Your task to perform on an android device: Go to notification settings Image 0: 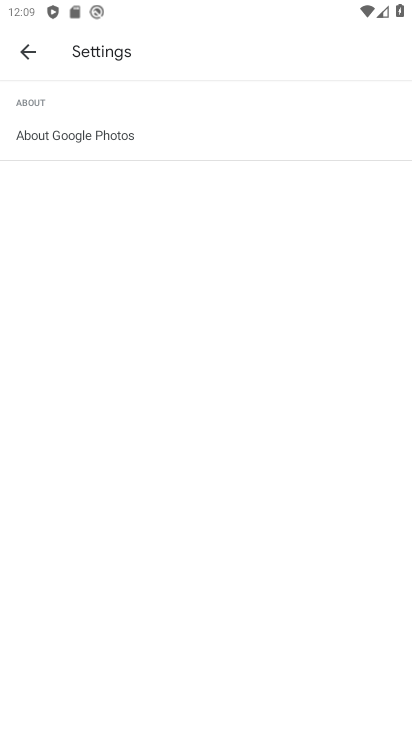
Step 0: press home button
Your task to perform on an android device: Go to notification settings Image 1: 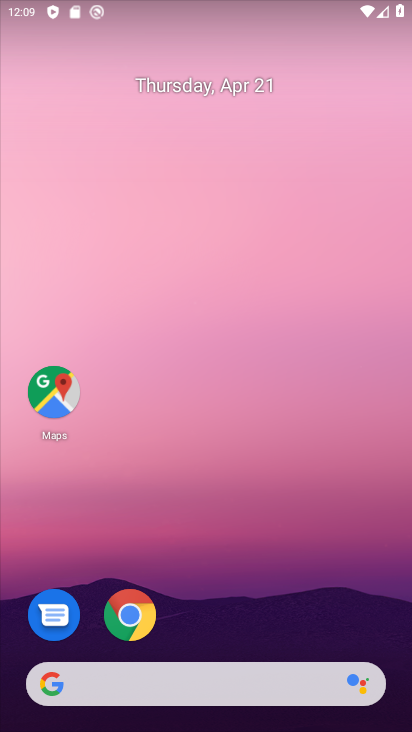
Step 1: drag from (196, 358) to (205, 13)
Your task to perform on an android device: Go to notification settings Image 2: 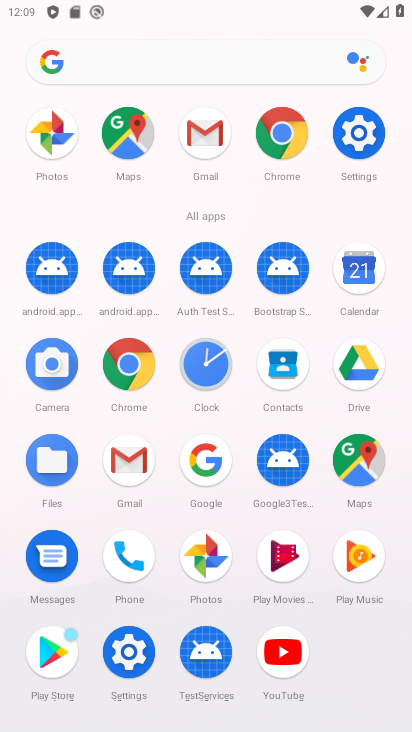
Step 2: click (353, 146)
Your task to perform on an android device: Go to notification settings Image 3: 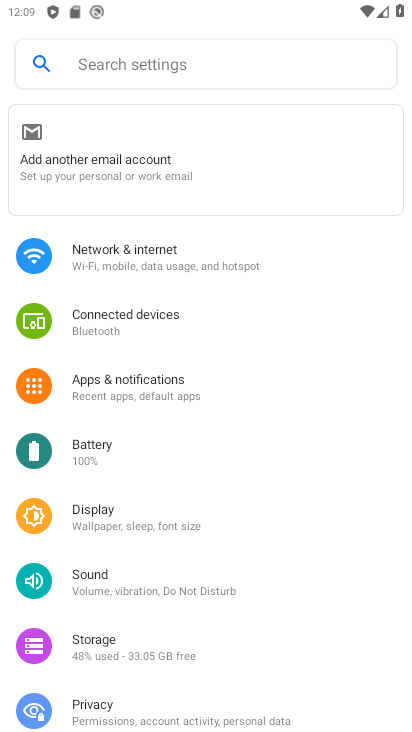
Step 3: click (148, 391)
Your task to perform on an android device: Go to notification settings Image 4: 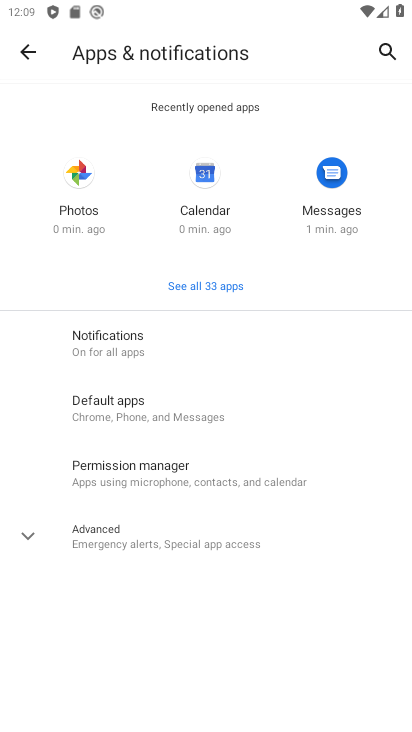
Step 4: click (155, 346)
Your task to perform on an android device: Go to notification settings Image 5: 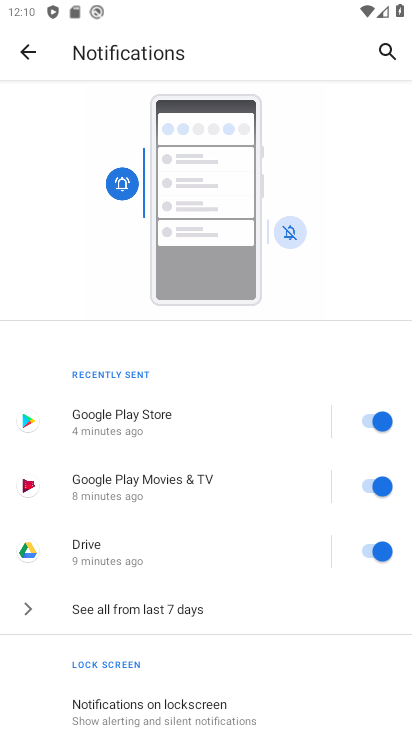
Step 5: task complete